Your task to perform on an android device: Open calendar and show me the first week of next month Image 0: 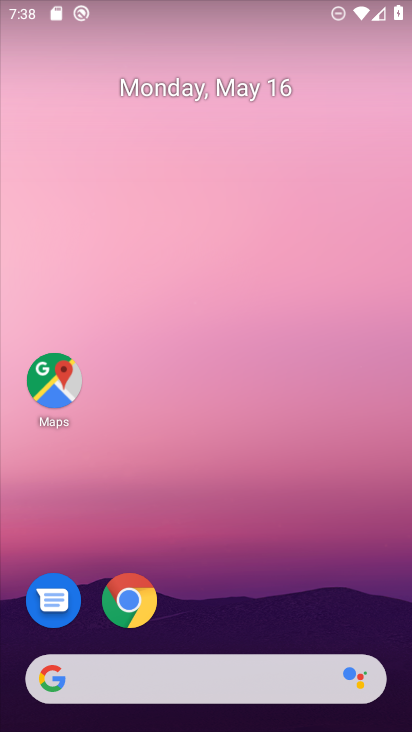
Step 0: drag from (195, 669) to (360, 51)
Your task to perform on an android device: Open calendar and show me the first week of next month Image 1: 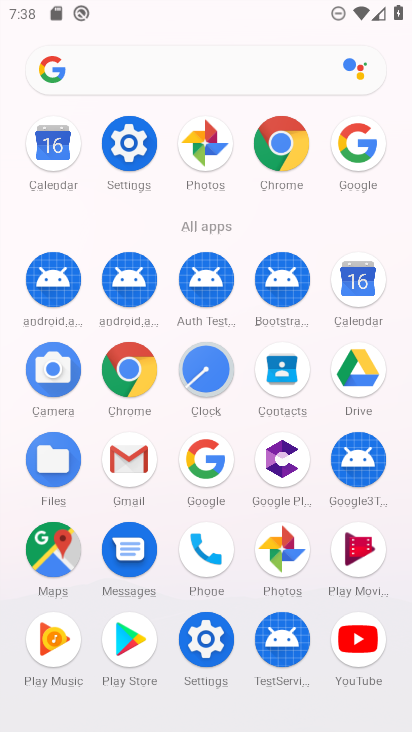
Step 1: click (357, 282)
Your task to perform on an android device: Open calendar and show me the first week of next month Image 2: 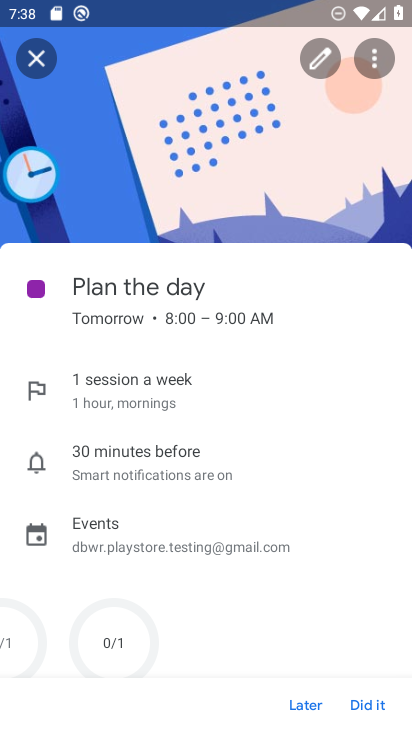
Step 2: click (43, 58)
Your task to perform on an android device: Open calendar and show me the first week of next month Image 3: 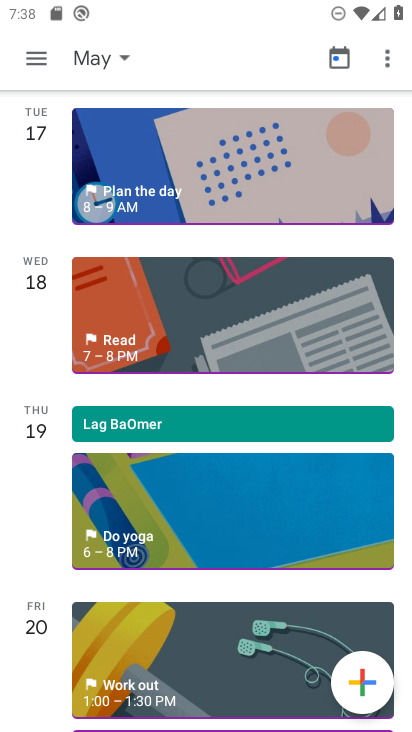
Step 3: click (100, 63)
Your task to perform on an android device: Open calendar and show me the first week of next month Image 4: 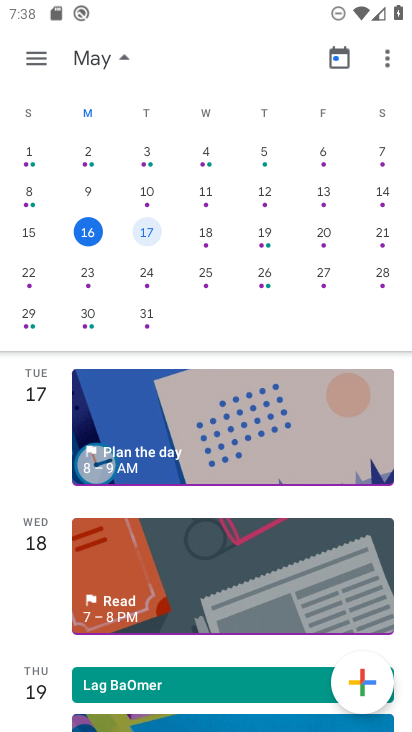
Step 4: drag from (379, 206) to (6, 148)
Your task to perform on an android device: Open calendar and show me the first week of next month Image 5: 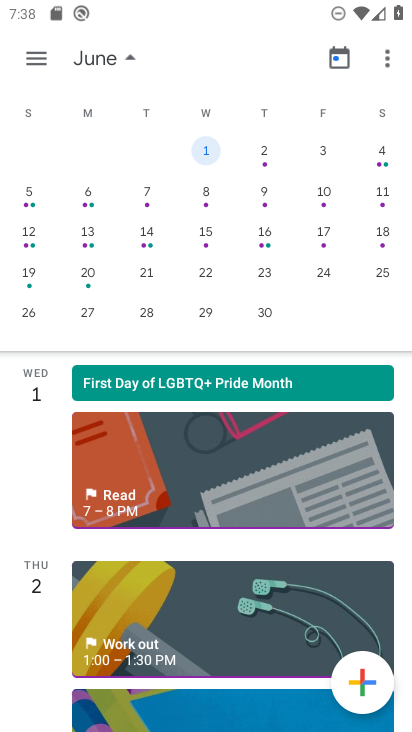
Step 5: click (206, 153)
Your task to perform on an android device: Open calendar and show me the first week of next month Image 6: 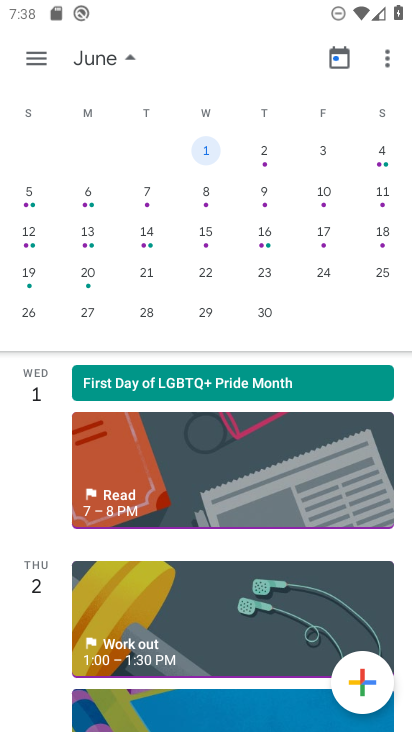
Step 6: click (203, 146)
Your task to perform on an android device: Open calendar and show me the first week of next month Image 7: 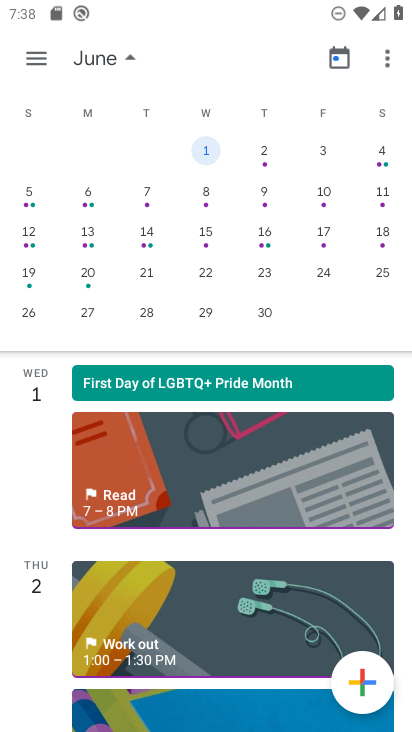
Step 7: click (42, 59)
Your task to perform on an android device: Open calendar and show me the first week of next month Image 8: 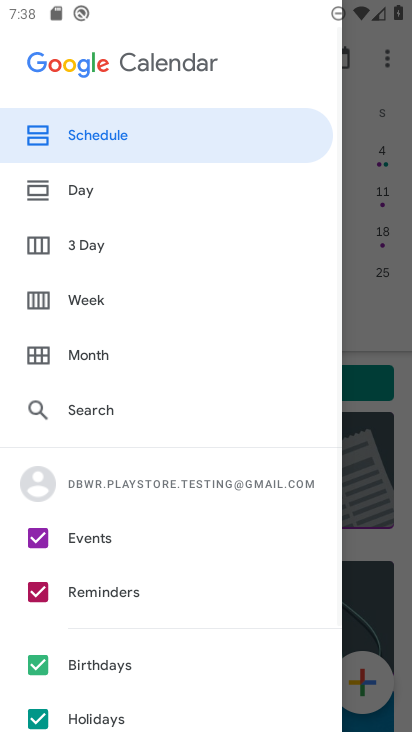
Step 8: click (98, 303)
Your task to perform on an android device: Open calendar and show me the first week of next month Image 9: 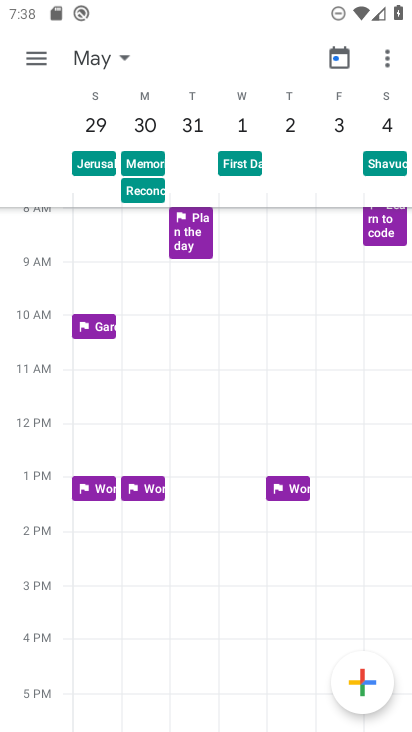
Step 9: task complete